Your task to perform on an android device: turn on data saver in the chrome app Image 0: 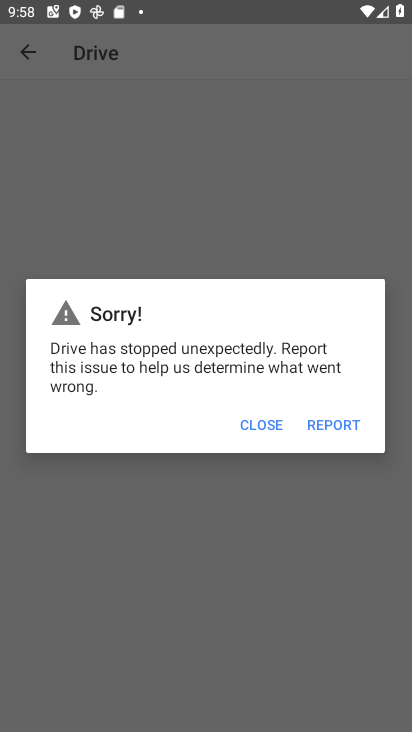
Step 0: press home button
Your task to perform on an android device: turn on data saver in the chrome app Image 1: 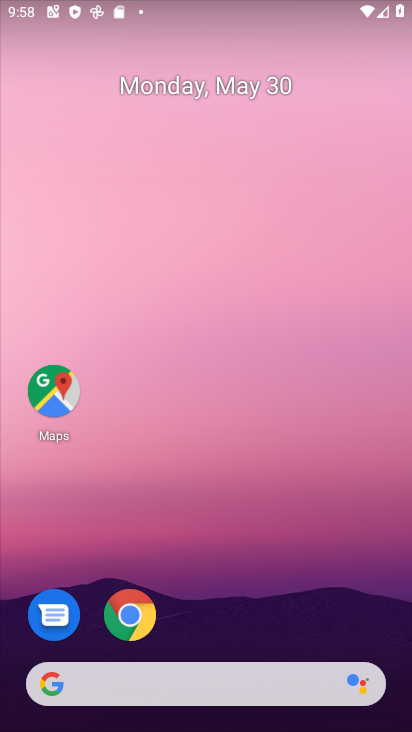
Step 1: click (129, 615)
Your task to perform on an android device: turn on data saver in the chrome app Image 2: 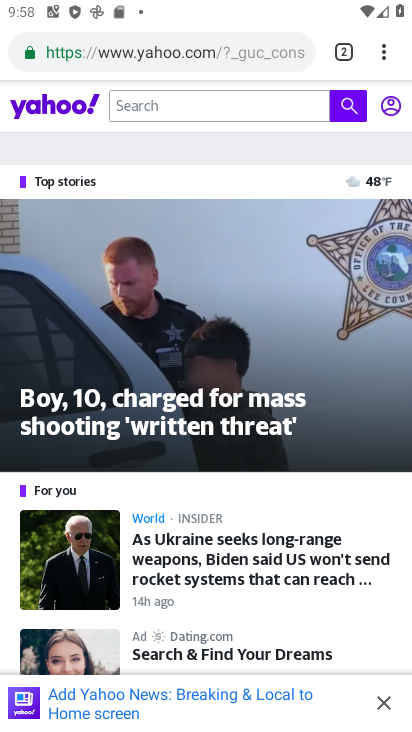
Step 2: click (384, 59)
Your task to perform on an android device: turn on data saver in the chrome app Image 3: 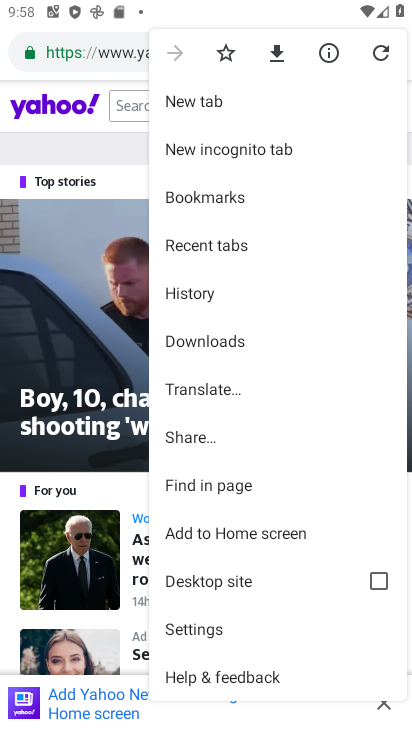
Step 3: click (218, 625)
Your task to perform on an android device: turn on data saver in the chrome app Image 4: 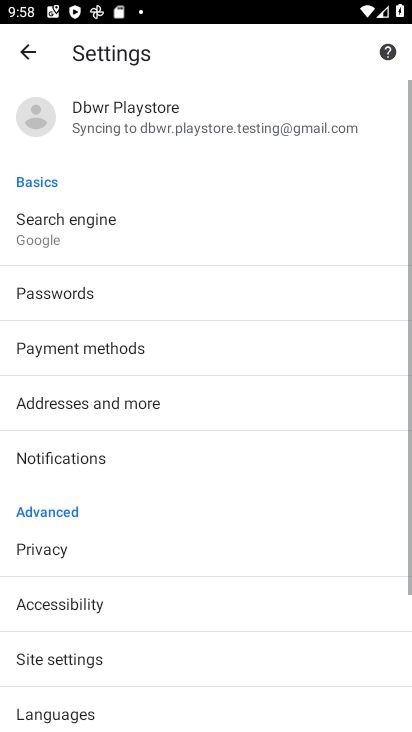
Step 4: drag from (174, 633) to (199, 285)
Your task to perform on an android device: turn on data saver in the chrome app Image 5: 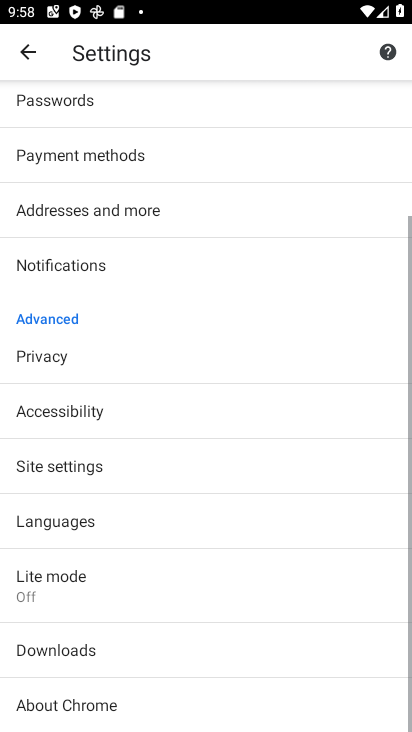
Step 5: click (90, 582)
Your task to perform on an android device: turn on data saver in the chrome app Image 6: 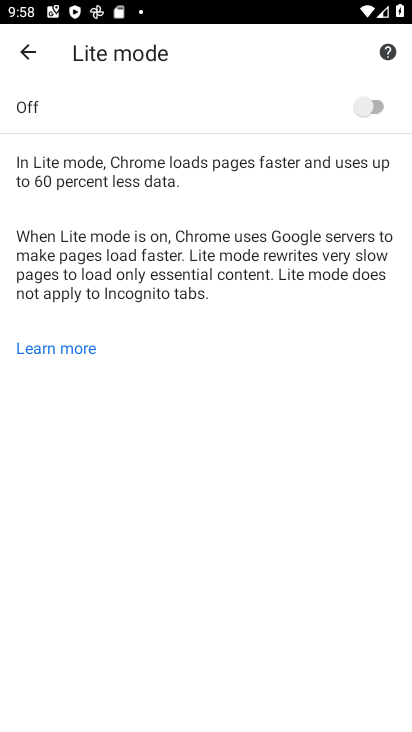
Step 6: click (367, 106)
Your task to perform on an android device: turn on data saver in the chrome app Image 7: 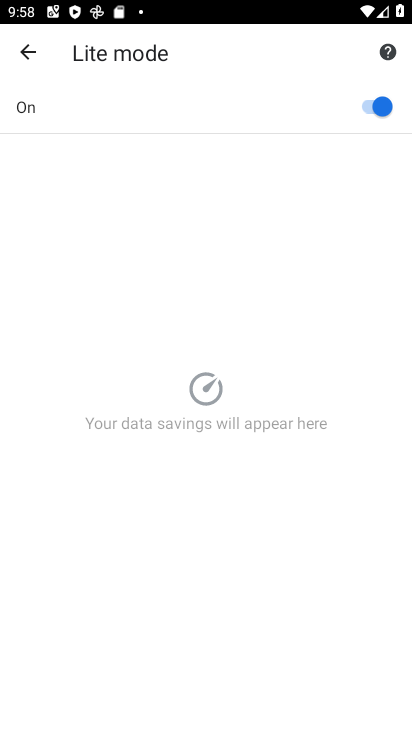
Step 7: task complete